Your task to perform on an android device: turn on airplane mode Image 0: 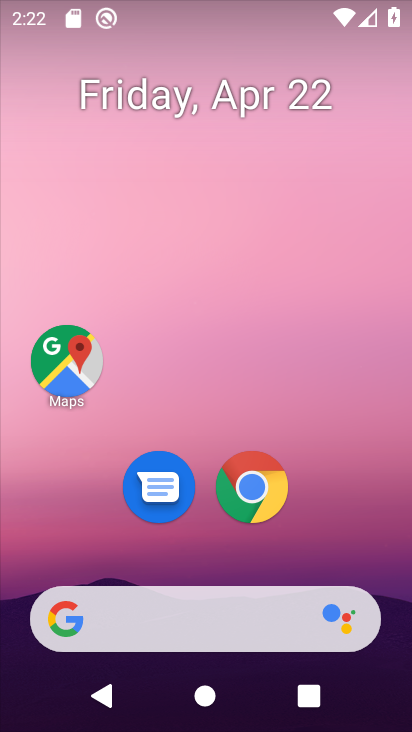
Step 0: drag from (225, 571) to (248, 166)
Your task to perform on an android device: turn on airplane mode Image 1: 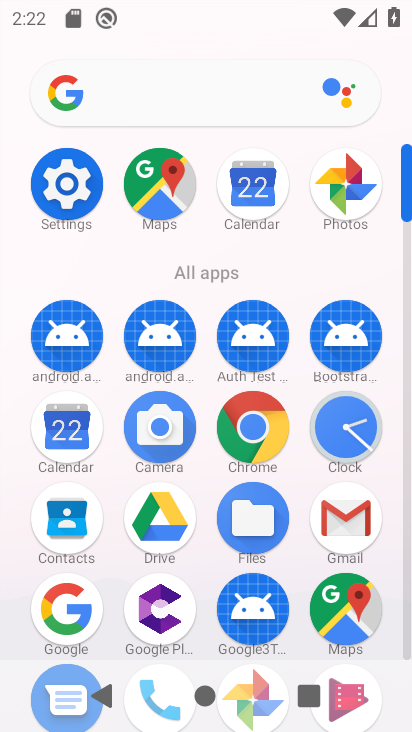
Step 1: click (65, 202)
Your task to perform on an android device: turn on airplane mode Image 2: 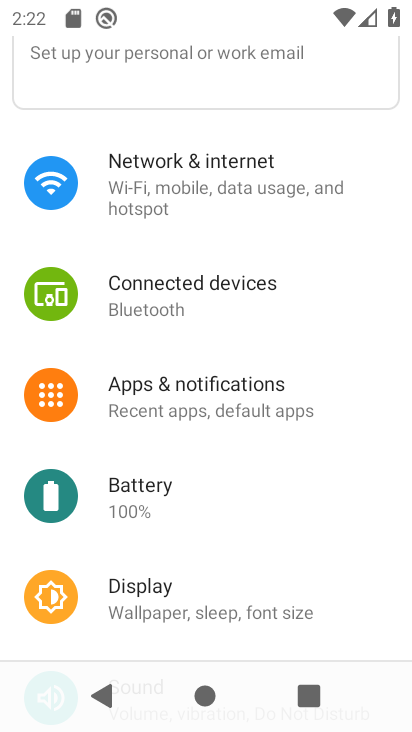
Step 2: click (211, 225)
Your task to perform on an android device: turn on airplane mode Image 3: 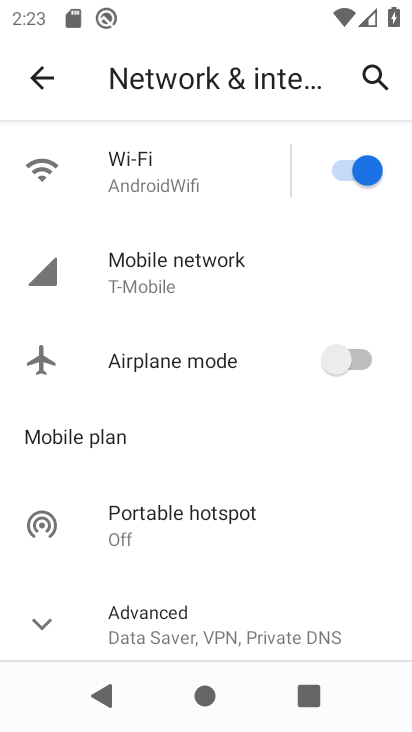
Step 3: click (43, 81)
Your task to perform on an android device: turn on airplane mode Image 4: 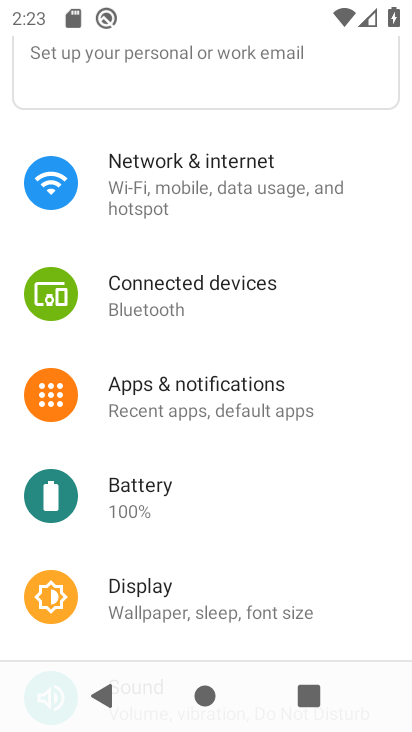
Step 4: click (358, 364)
Your task to perform on an android device: turn on airplane mode Image 5: 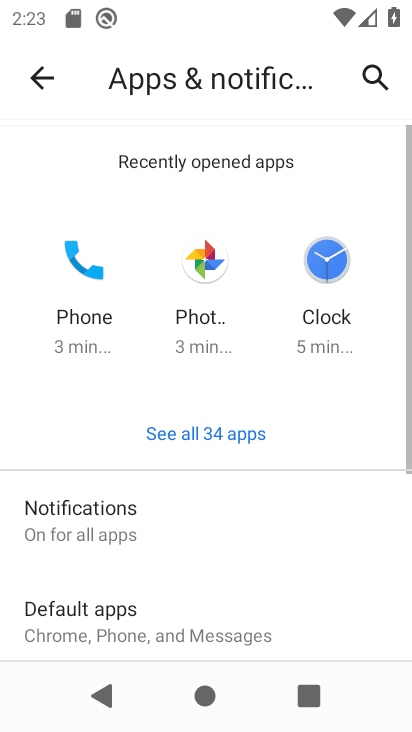
Step 5: click (251, 209)
Your task to perform on an android device: turn on airplane mode Image 6: 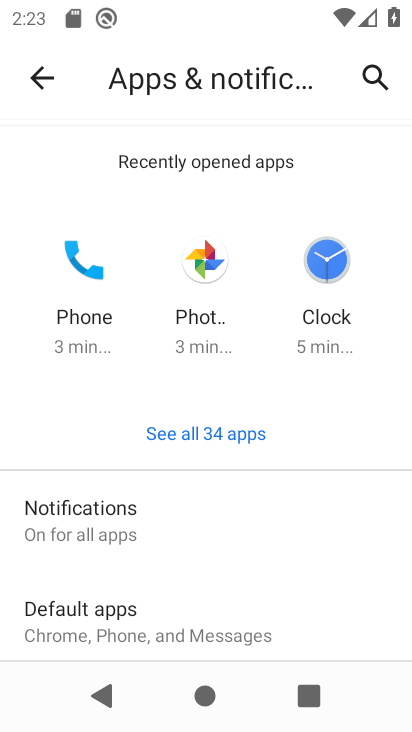
Step 6: click (65, 84)
Your task to perform on an android device: turn on airplane mode Image 7: 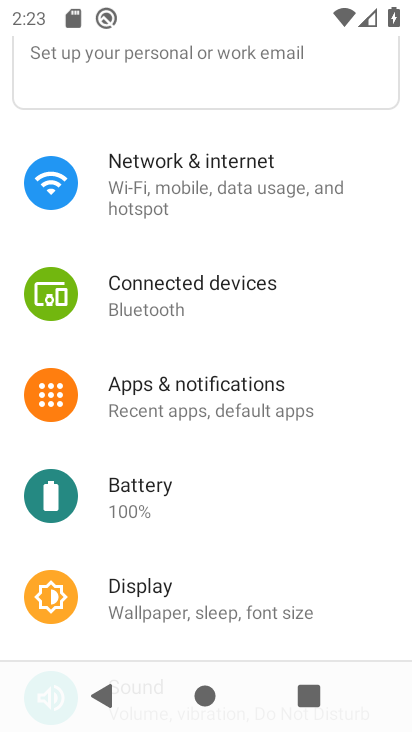
Step 7: click (243, 202)
Your task to perform on an android device: turn on airplane mode Image 8: 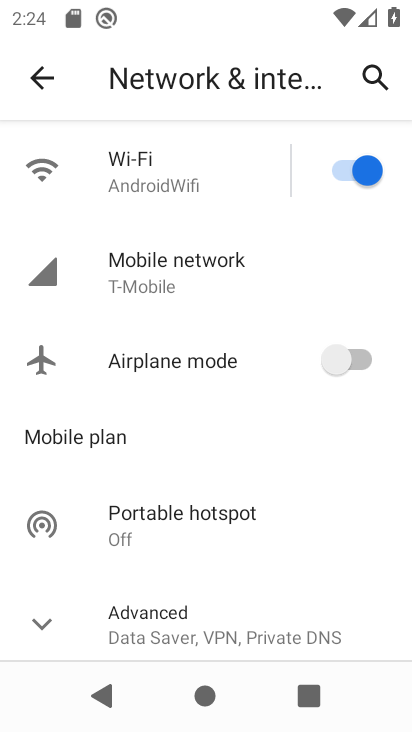
Step 8: click (346, 363)
Your task to perform on an android device: turn on airplane mode Image 9: 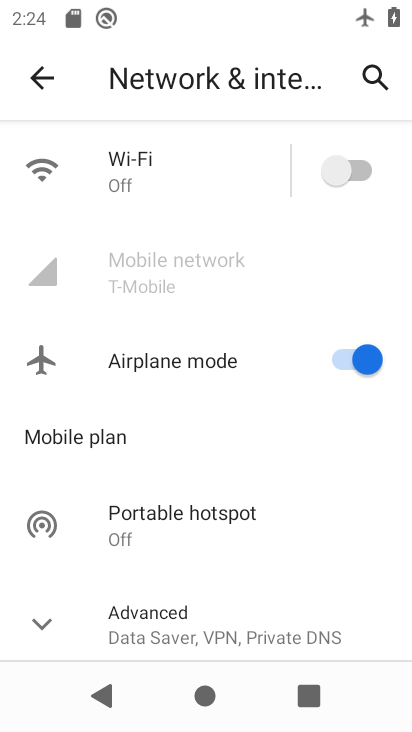
Step 9: task complete